Your task to perform on an android device: delete the emails in spam in the gmail app Image 0: 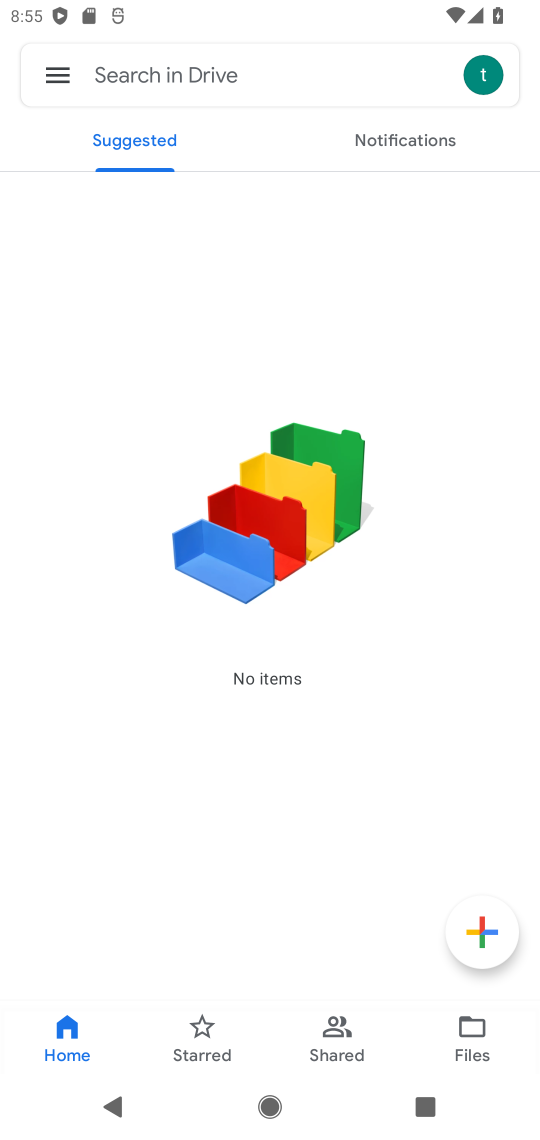
Step 0: press home button
Your task to perform on an android device: delete the emails in spam in the gmail app Image 1: 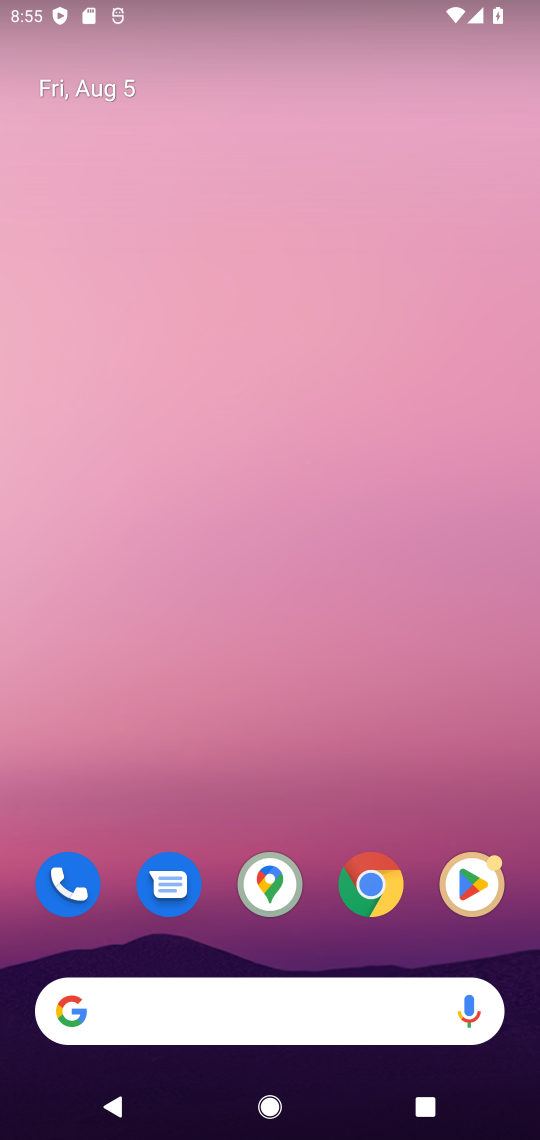
Step 1: drag from (227, 681) to (231, 143)
Your task to perform on an android device: delete the emails in spam in the gmail app Image 2: 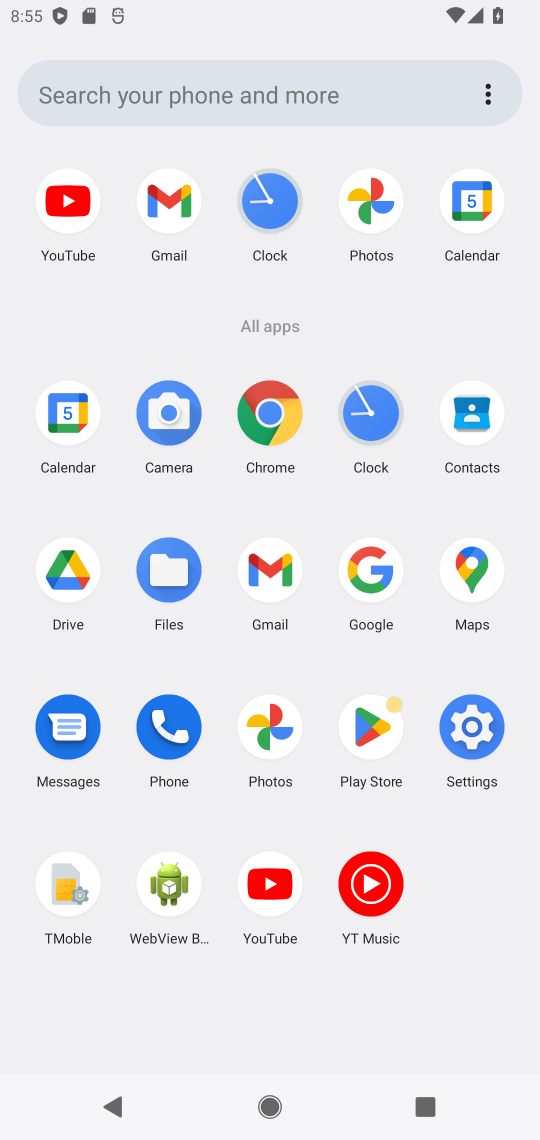
Step 2: click (263, 586)
Your task to perform on an android device: delete the emails in spam in the gmail app Image 3: 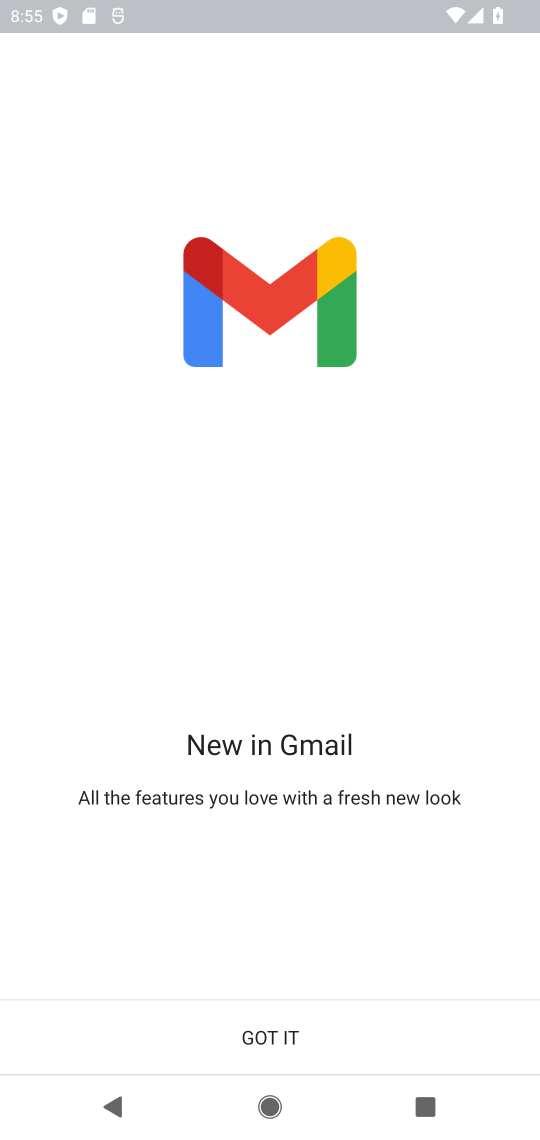
Step 3: click (266, 1038)
Your task to perform on an android device: delete the emails in spam in the gmail app Image 4: 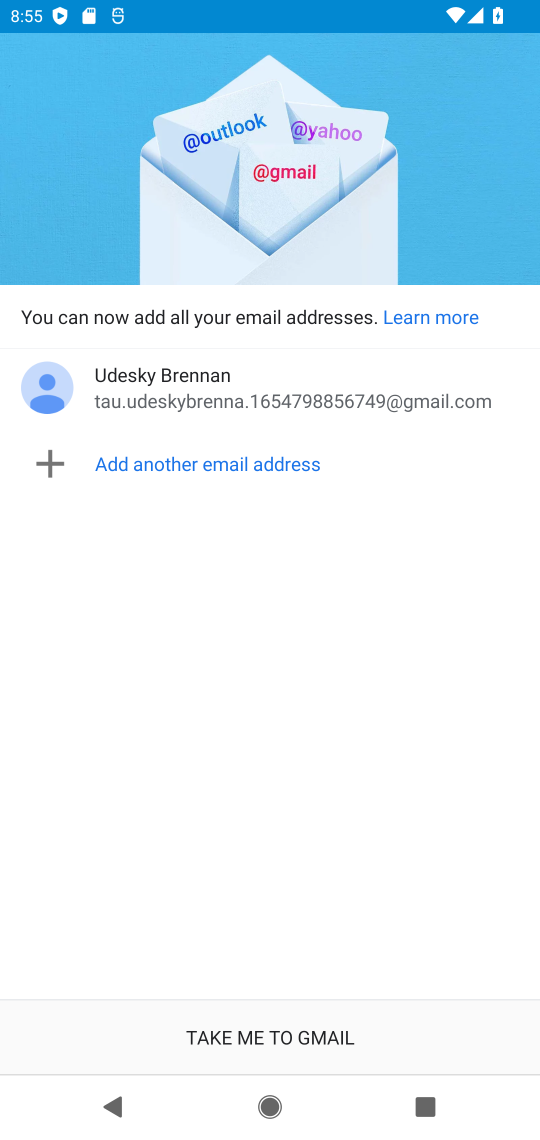
Step 4: click (298, 1046)
Your task to perform on an android device: delete the emails in spam in the gmail app Image 5: 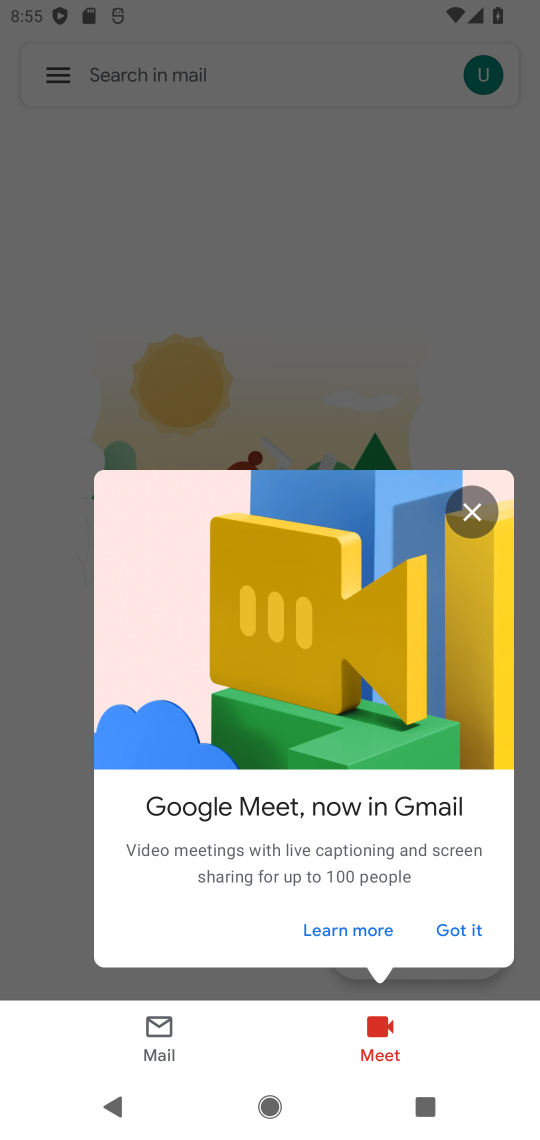
Step 5: task complete